Your task to perform on an android device: turn off location history Image 0: 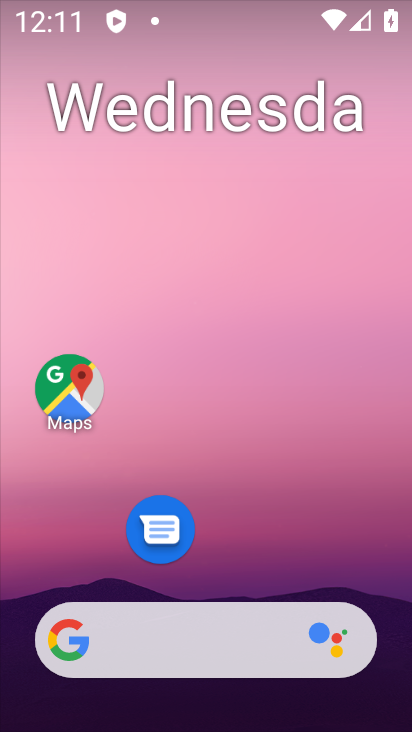
Step 0: drag from (178, 590) to (174, 156)
Your task to perform on an android device: turn off location history Image 1: 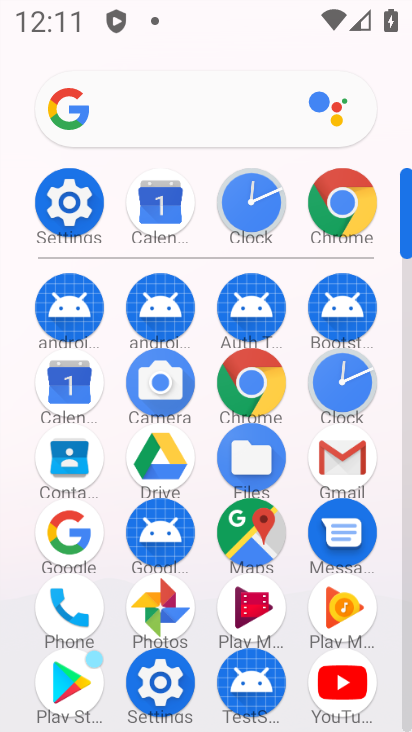
Step 1: click (65, 197)
Your task to perform on an android device: turn off location history Image 2: 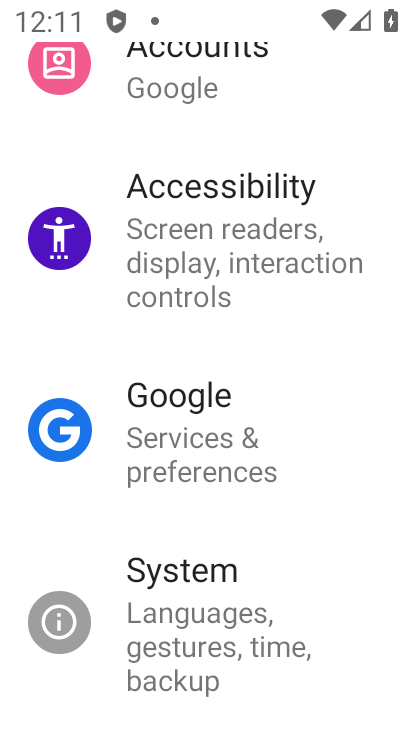
Step 2: drag from (172, 583) to (161, 445)
Your task to perform on an android device: turn off location history Image 3: 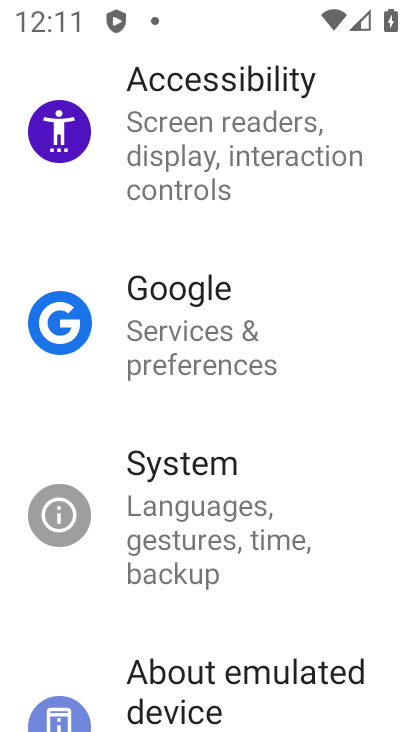
Step 3: drag from (205, 324) to (187, 469)
Your task to perform on an android device: turn off location history Image 4: 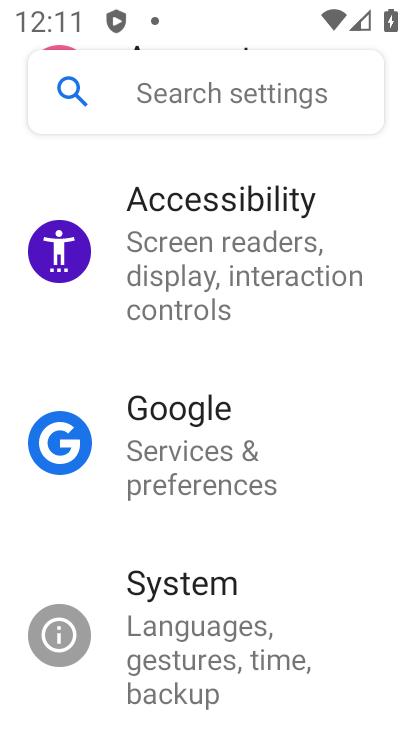
Step 4: drag from (176, 298) to (140, 606)
Your task to perform on an android device: turn off location history Image 5: 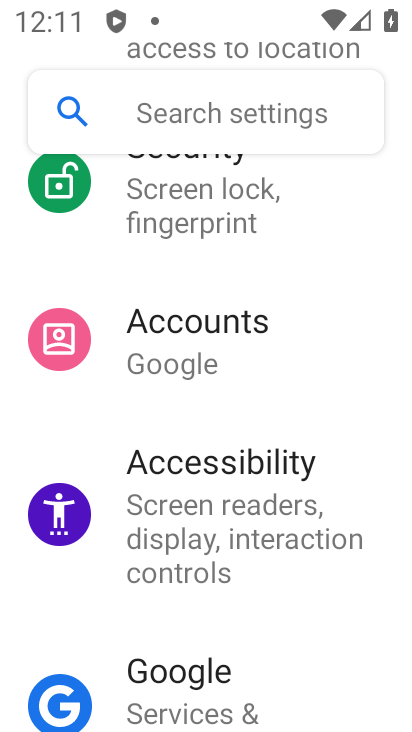
Step 5: drag from (216, 342) to (193, 729)
Your task to perform on an android device: turn off location history Image 6: 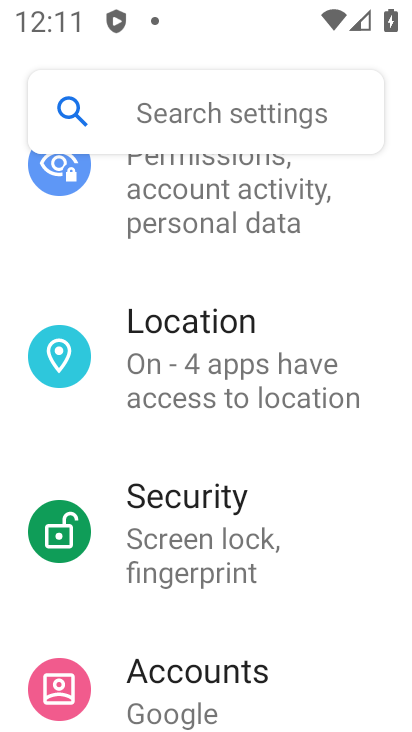
Step 6: click (308, 353)
Your task to perform on an android device: turn off location history Image 7: 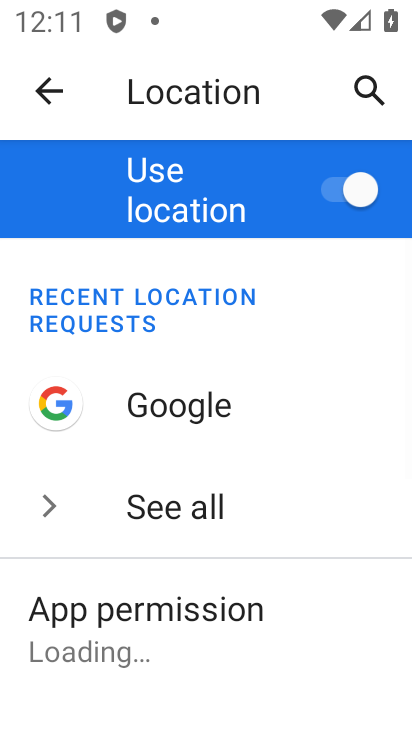
Step 7: drag from (274, 617) to (221, 186)
Your task to perform on an android device: turn off location history Image 8: 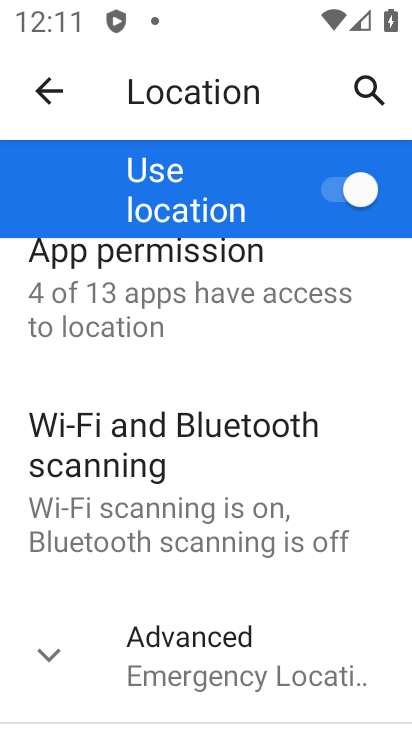
Step 8: click (246, 664)
Your task to perform on an android device: turn off location history Image 9: 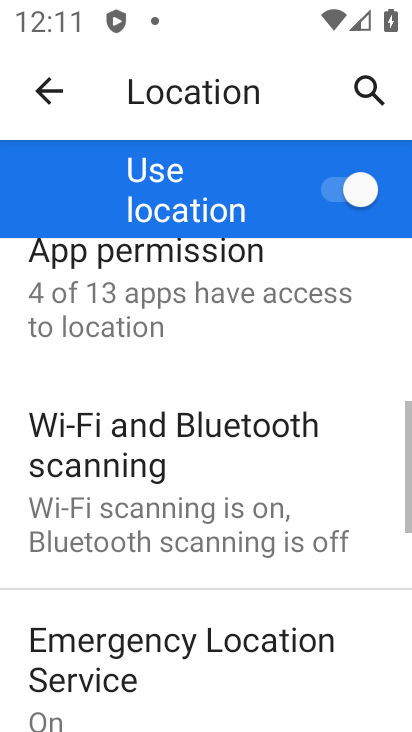
Step 9: drag from (246, 658) to (218, 104)
Your task to perform on an android device: turn off location history Image 10: 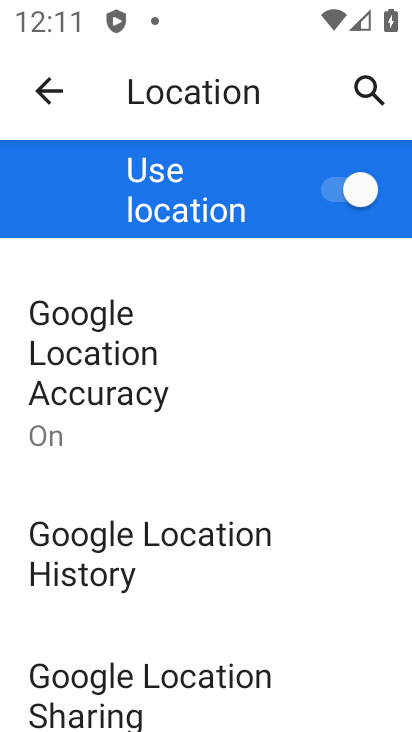
Step 10: click (179, 597)
Your task to perform on an android device: turn off location history Image 11: 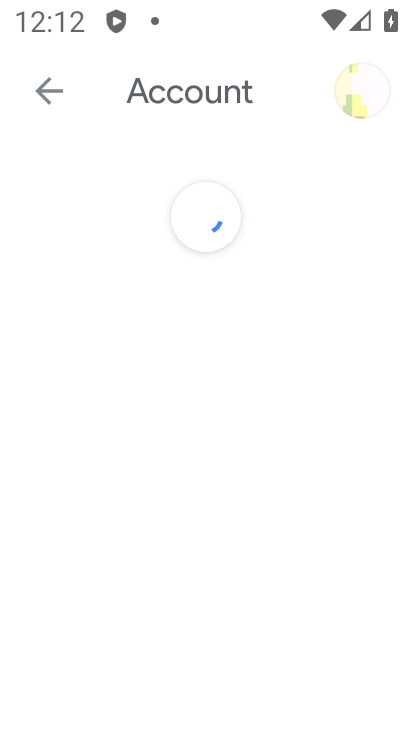
Step 11: drag from (186, 584) to (180, 150)
Your task to perform on an android device: turn off location history Image 12: 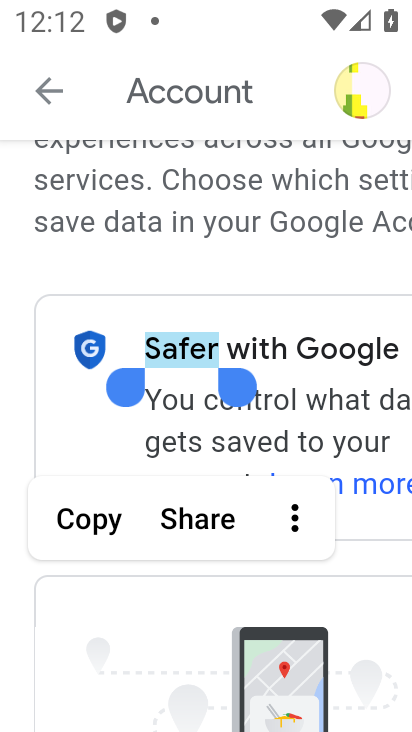
Step 12: drag from (257, 566) to (185, 122)
Your task to perform on an android device: turn off location history Image 13: 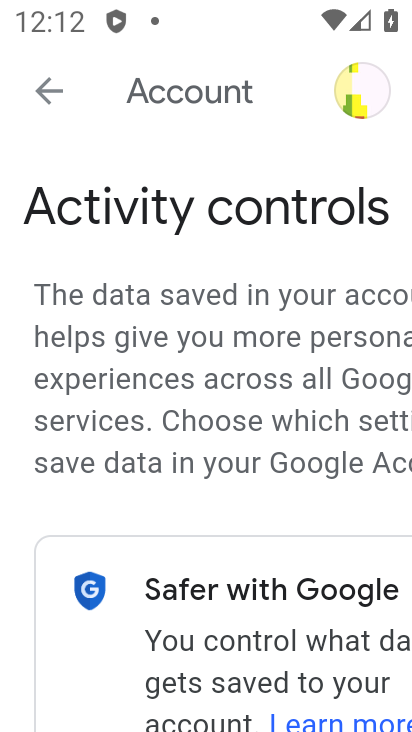
Step 13: drag from (254, 595) to (145, 2)
Your task to perform on an android device: turn off location history Image 14: 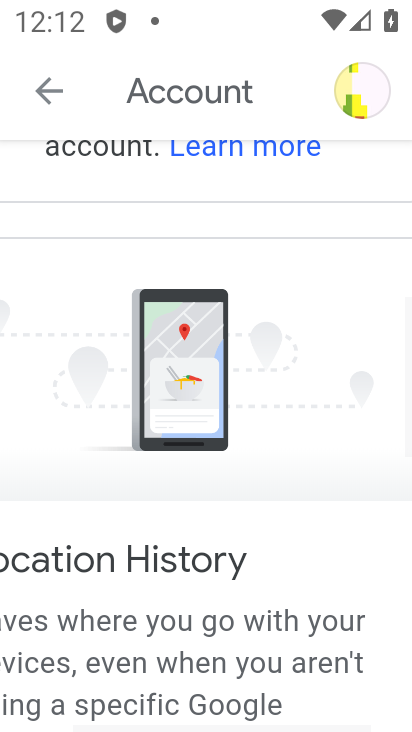
Step 14: drag from (267, 601) to (316, 10)
Your task to perform on an android device: turn off location history Image 15: 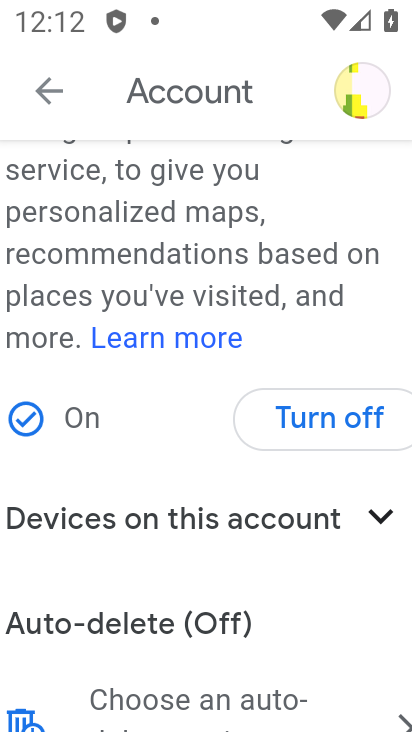
Step 15: click (303, 426)
Your task to perform on an android device: turn off location history Image 16: 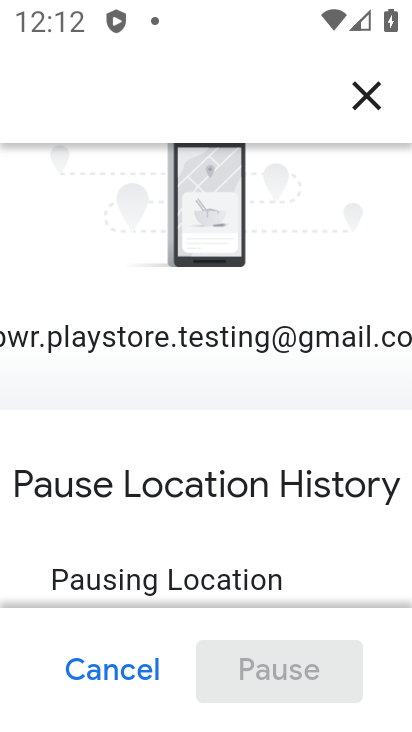
Step 16: drag from (311, 567) to (241, 30)
Your task to perform on an android device: turn off location history Image 17: 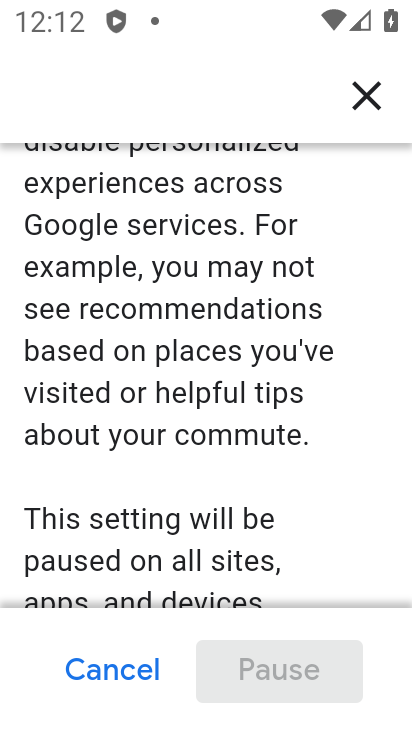
Step 17: drag from (233, 522) to (193, 17)
Your task to perform on an android device: turn off location history Image 18: 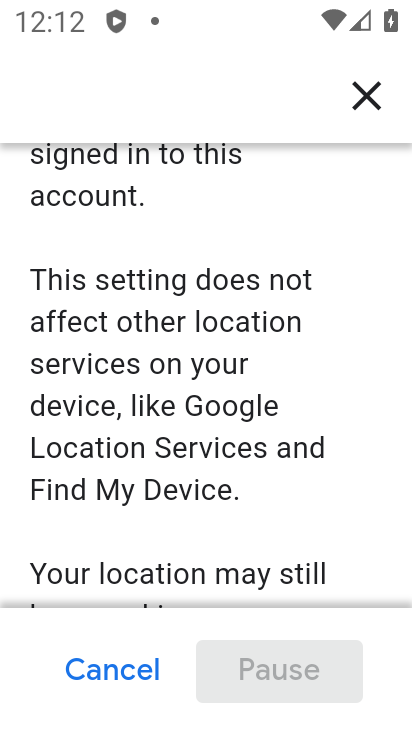
Step 18: drag from (285, 533) to (410, 375)
Your task to perform on an android device: turn off location history Image 19: 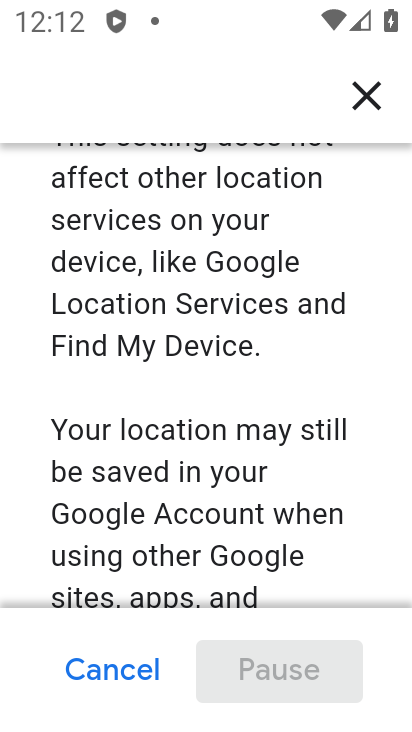
Step 19: drag from (295, 528) to (386, 24)
Your task to perform on an android device: turn off location history Image 20: 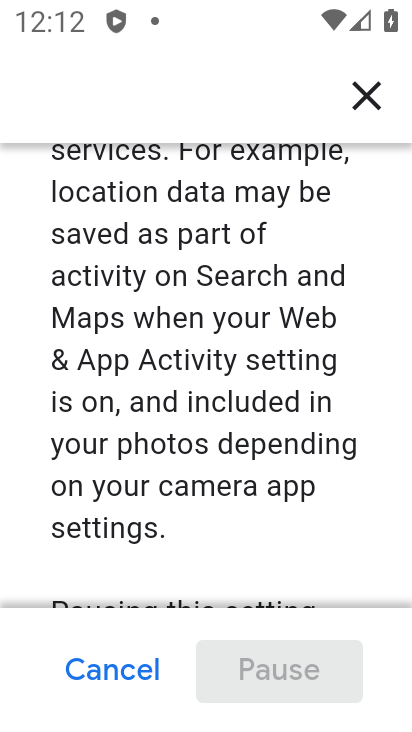
Step 20: drag from (299, 574) to (284, 8)
Your task to perform on an android device: turn off location history Image 21: 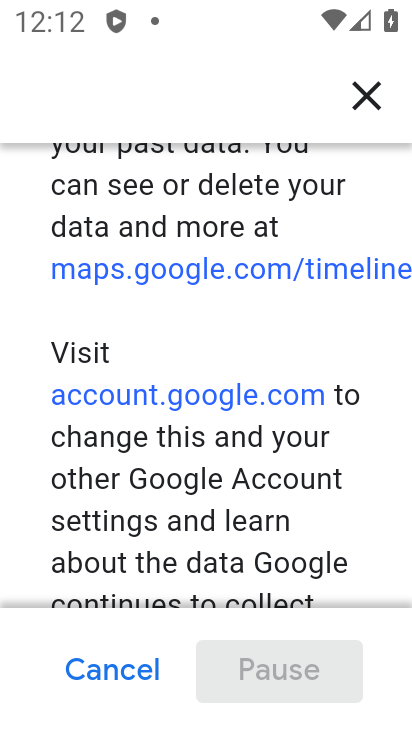
Step 21: drag from (285, 514) to (251, 3)
Your task to perform on an android device: turn off location history Image 22: 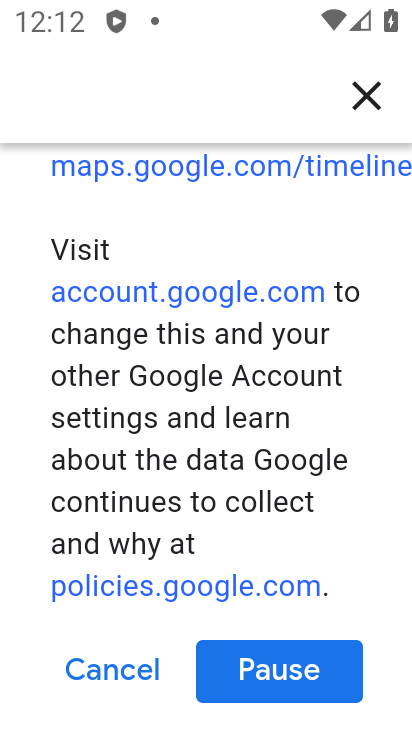
Step 22: click (298, 659)
Your task to perform on an android device: turn off location history Image 23: 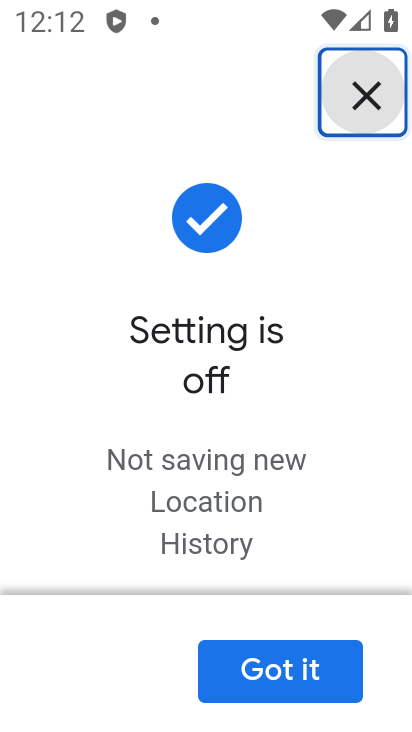
Step 23: click (300, 690)
Your task to perform on an android device: turn off location history Image 24: 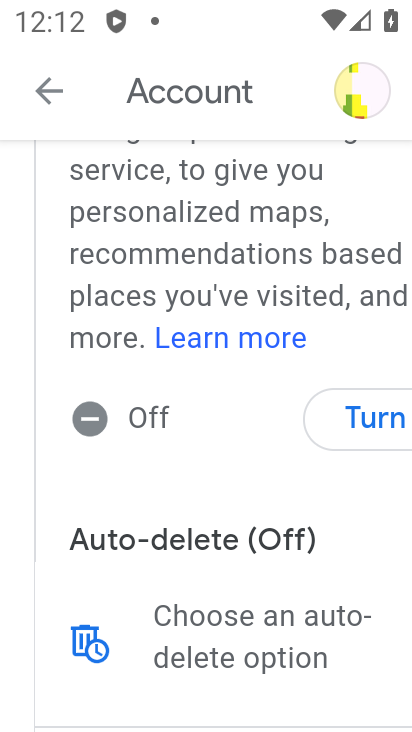
Step 24: task complete